Your task to perform on an android device: check android version Image 0: 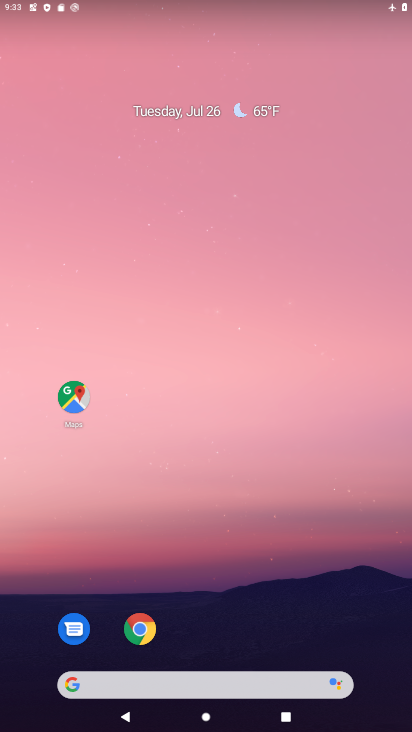
Step 0: drag from (320, 587) to (171, 44)
Your task to perform on an android device: check android version Image 1: 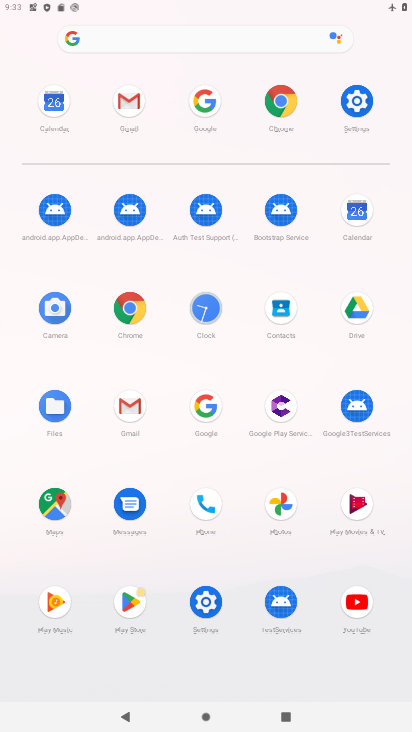
Step 1: click (366, 107)
Your task to perform on an android device: check android version Image 2: 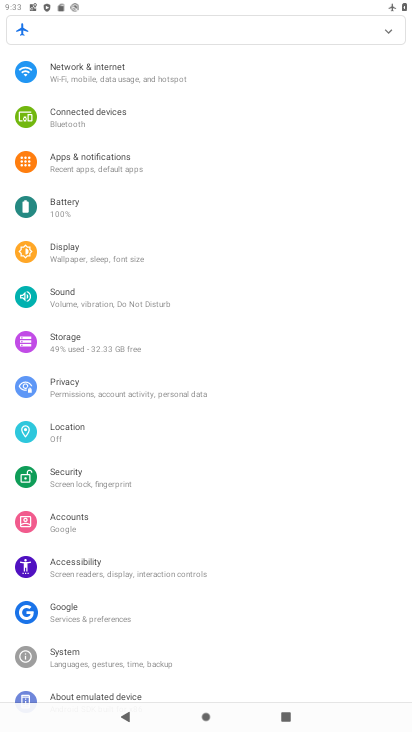
Step 2: drag from (230, 660) to (240, 172)
Your task to perform on an android device: check android version Image 3: 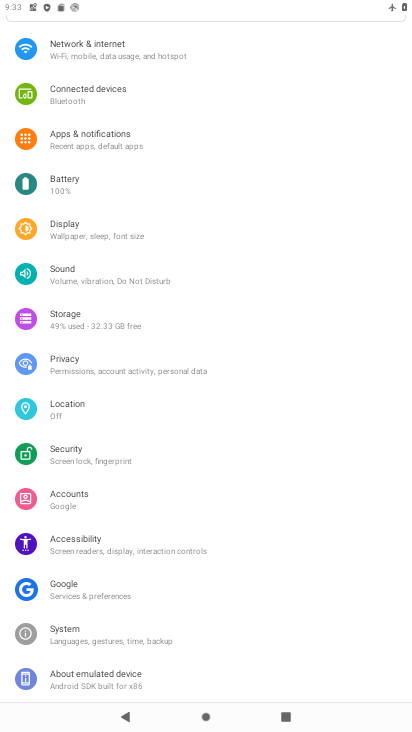
Step 3: click (106, 676)
Your task to perform on an android device: check android version Image 4: 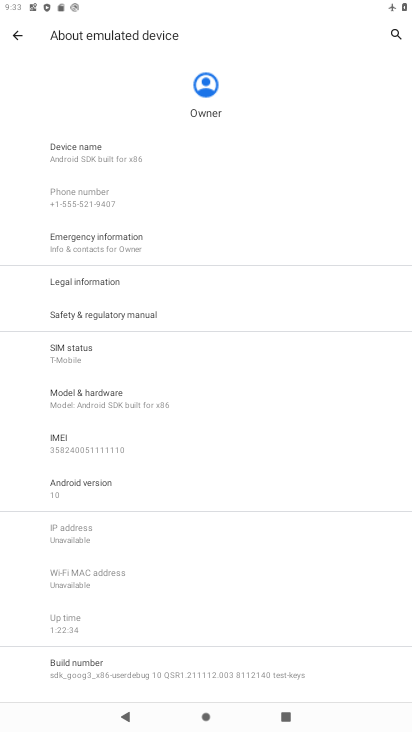
Step 4: click (104, 483)
Your task to perform on an android device: check android version Image 5: 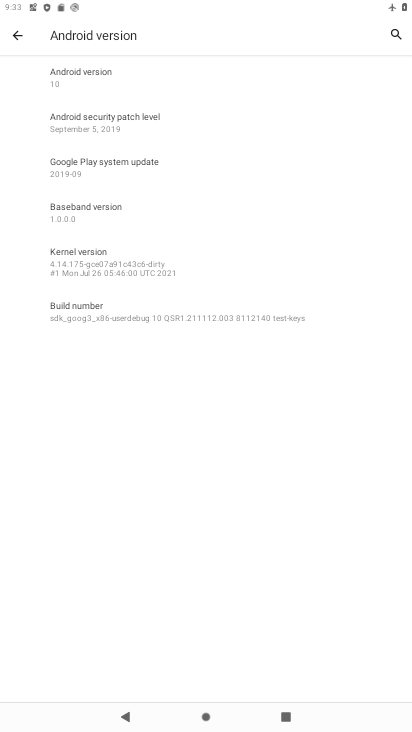
Step 5: task complete